Your task to perform on an android device: Clear the shopping cart on newegg.com. Add "razer thresher" to the cart on newegg.com, then select checkout. Image 0: 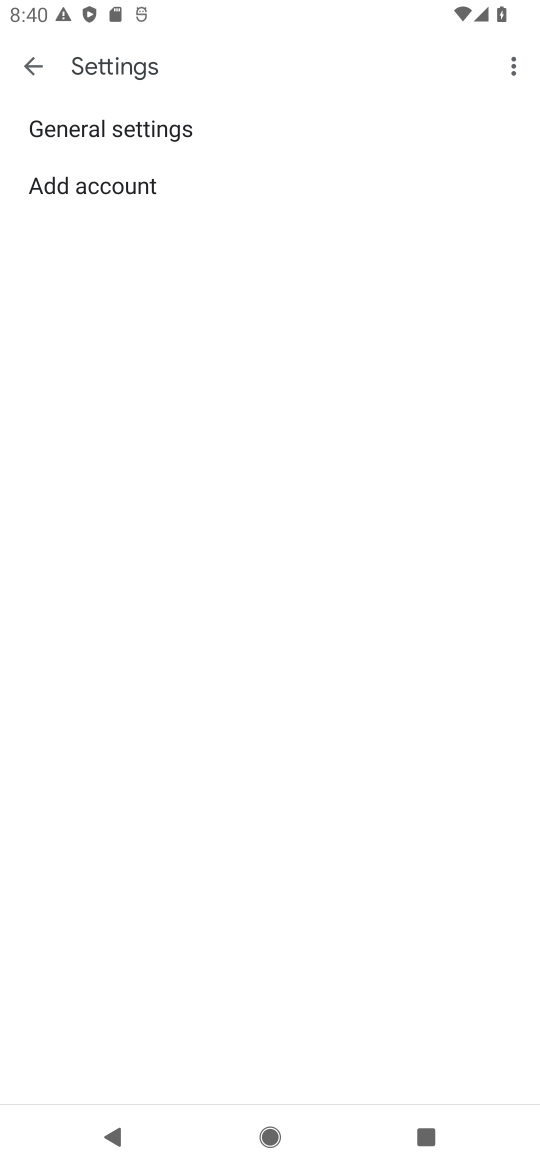
Step 0: press home button
Your task to perform on an android device: Clear the shopping cart on newegg.com. Add "razer thresher" to the cart on newegg.com, then select checkout. Image 1: 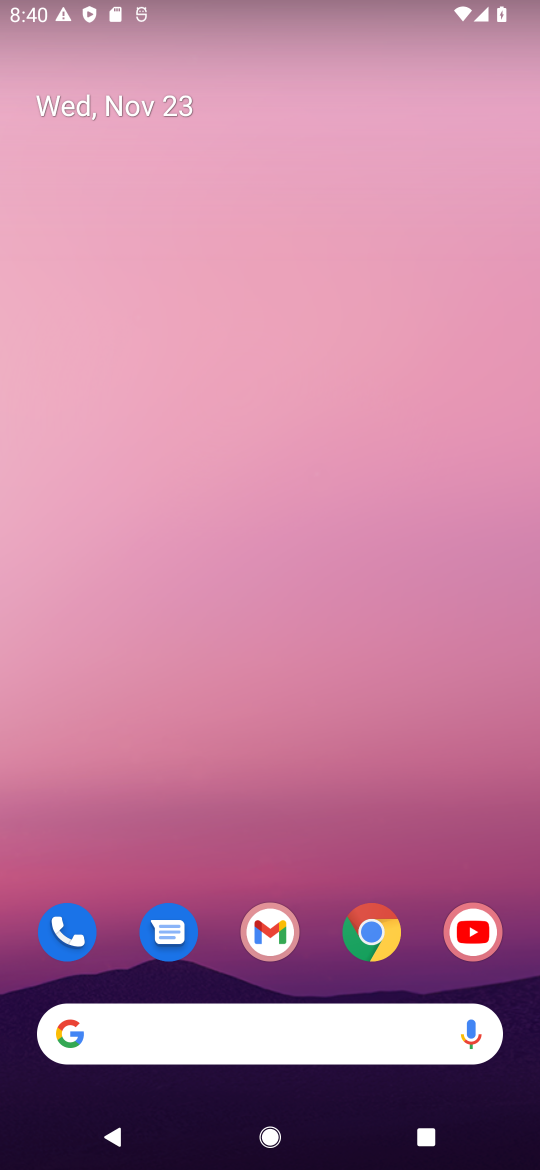
Step 1: click (366, 938)
Your task to perform on an android device: Clear the shopping cart on newegg.com. Add "razer thresher" to the cart on newegg.com, then select checkout. Image 2: 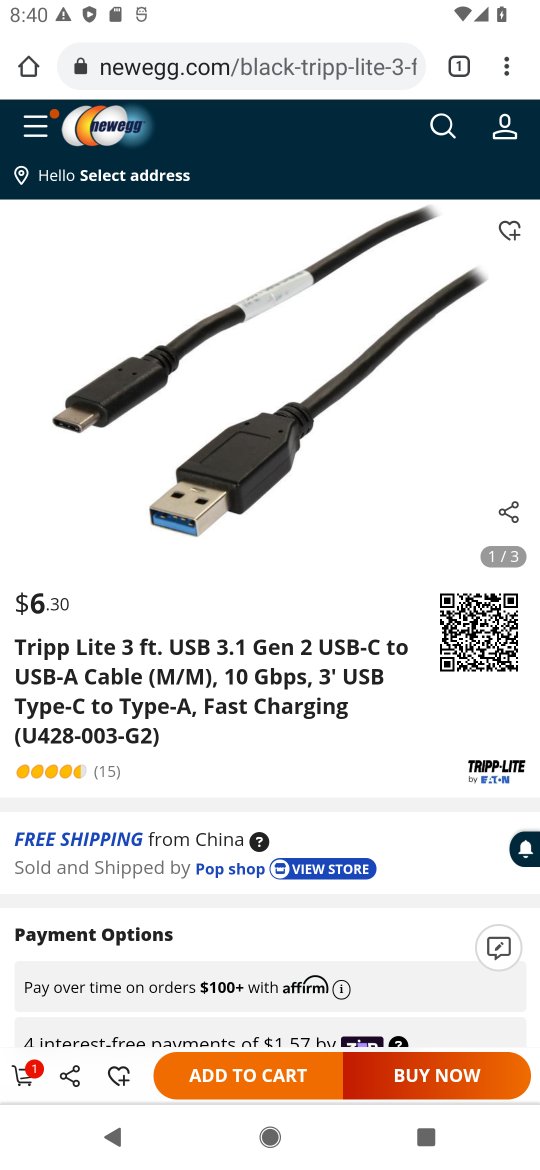
Step 2: click (241, 65)
Your task to perform on an android device: Clear the shopping cart on newegg.com. Add "razer thresher" to the cart on newegg.com, then select checkout. Image 3: 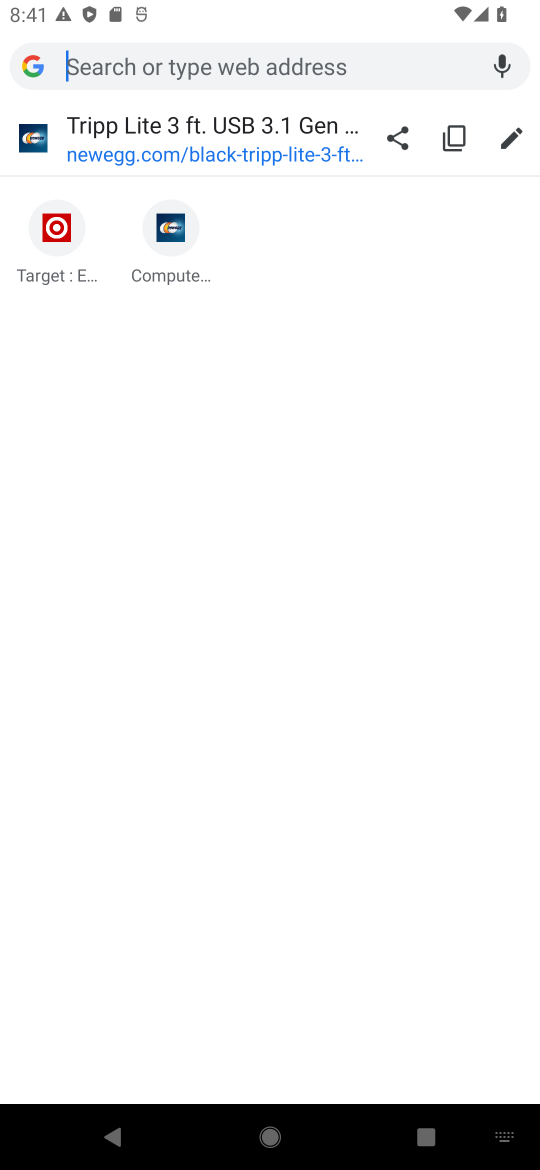
Step 3: type "newegg.com"
Your task to perform on an android device: Clear the shopping cart on newegg.com. Add "razer thresher" to the cart on newegg.com, then select checkout. Image 4: 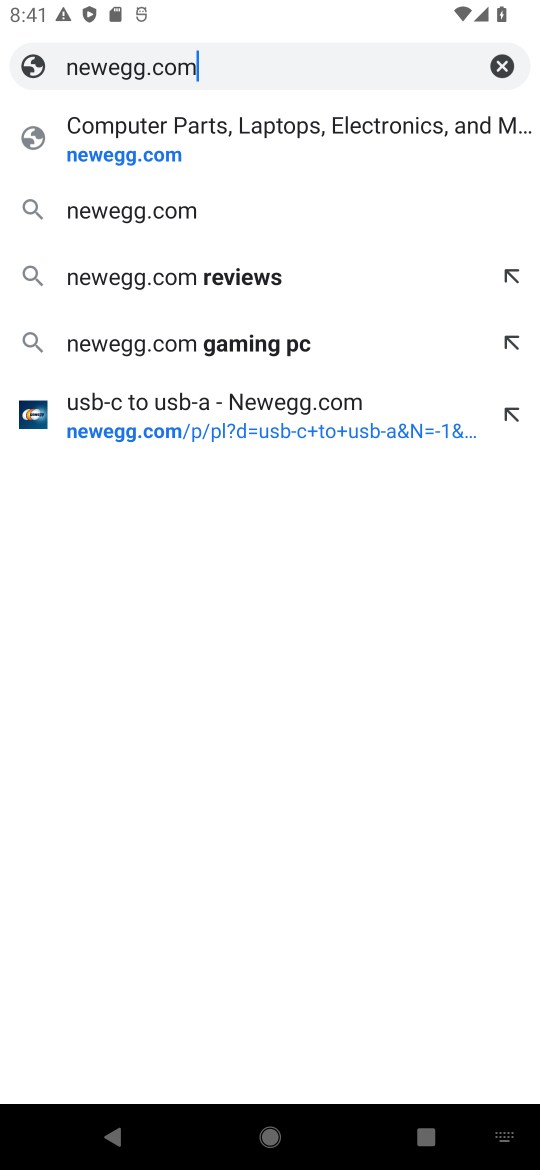
Step 4: click (293, 121)
Your task to perform on an android device: Clear the shopping cart on newegg.com. Add "razer thresher" to the cart on newegg.com, then select checkout. Image 5: 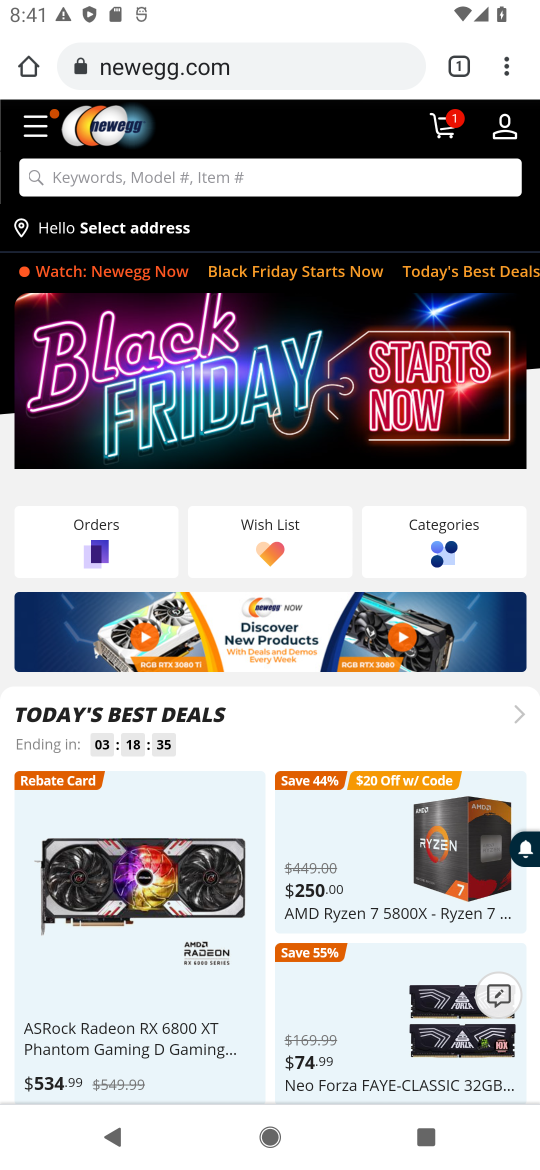
Step 5: click (50, 138)
Your task to perform on an android device: Clear the shopping cart on newegg.com. Add "razer thresher" to the cart on newegg.com, then select checkout. Image 6: 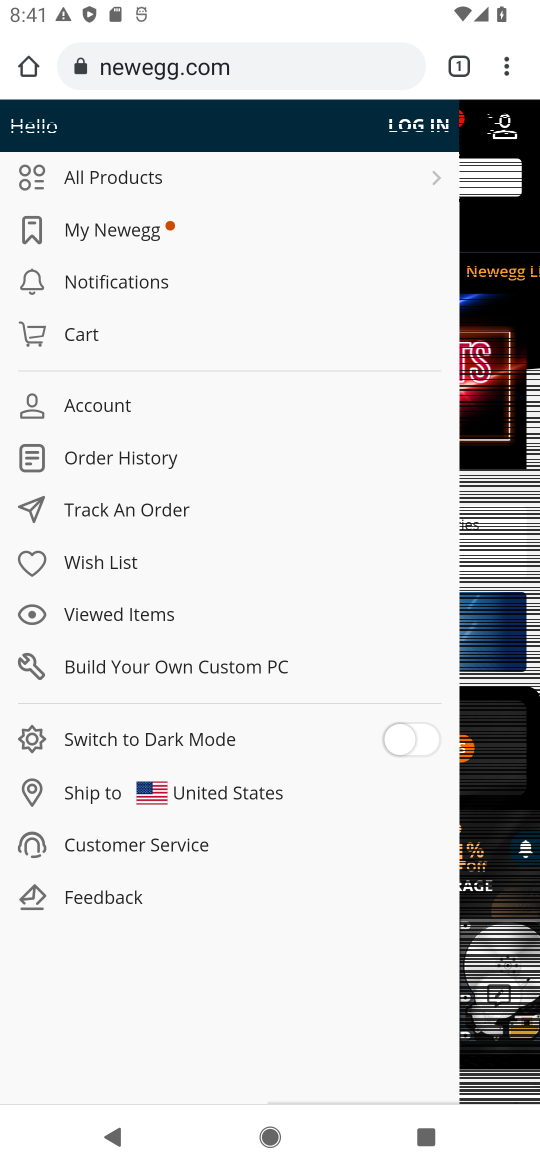
Step 6: click (89, 351)
Your task to perform on an android device: Clear the shopping cart on newegg.com. Add "razer thresher" to the cart on newegg.com, then select checkout. Image 7: 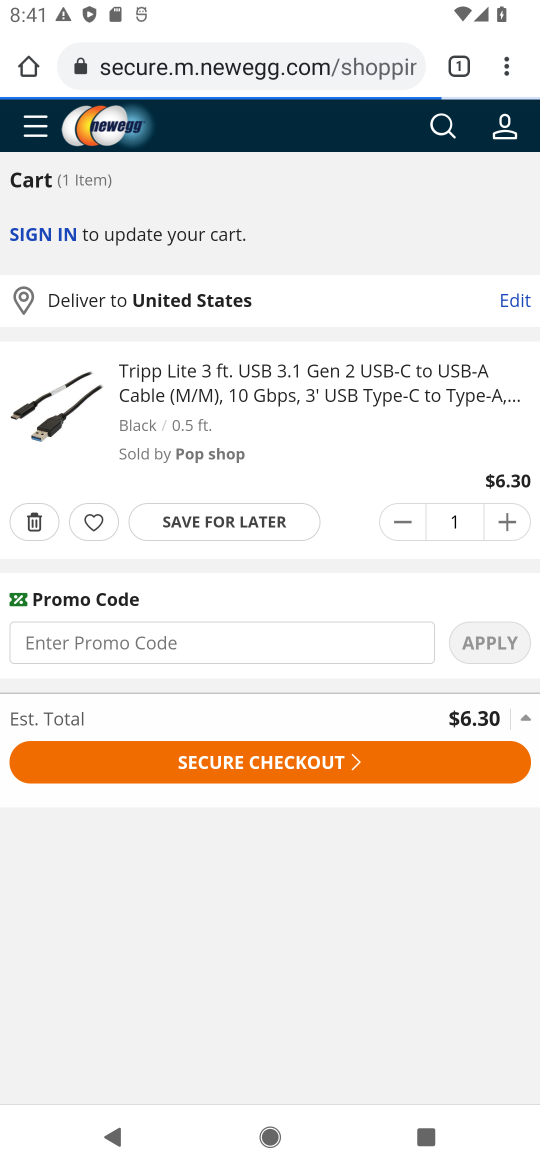
Step 7: click (31, 529)
Your task to perform on an android device: Clear the shopping cart on newegg.com. Add "razer thresher" to the cart on newegg.com, then select checkout. Image 8: 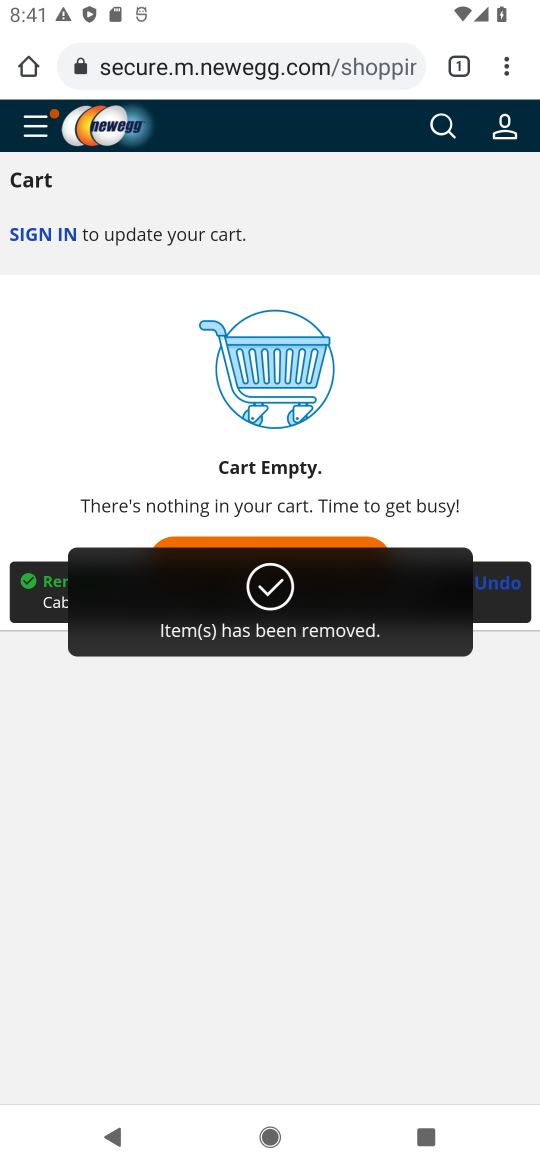
Step 8: click (443, 140)
Your task to perform on an android device: Clear the shopping cart on newegg.com. Add "razer thresher" to the cart on newegg.com, then select checkout. Image 9: 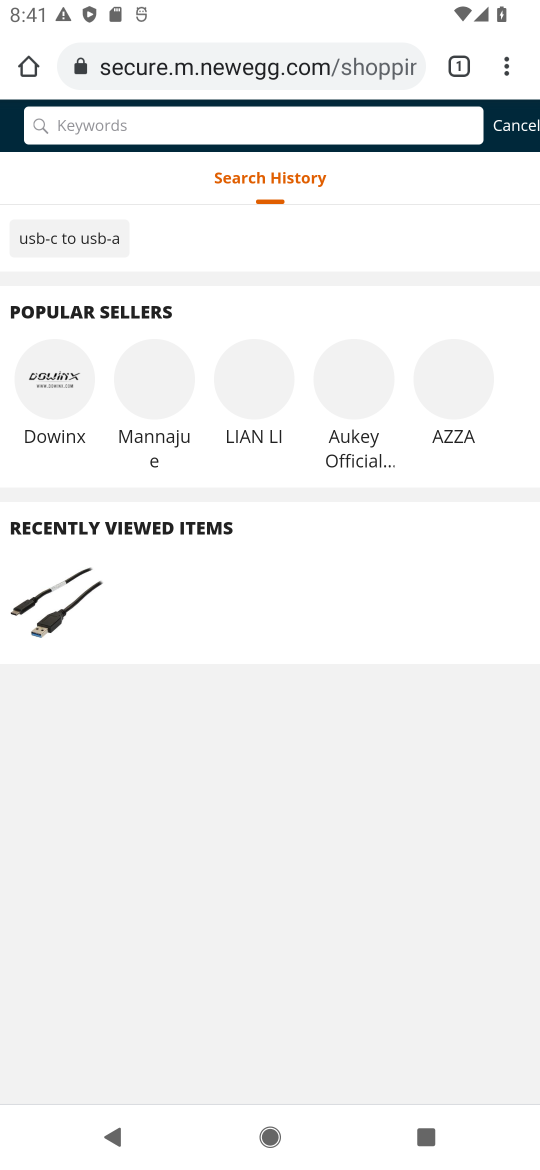
Step 9: click (445, 128)
Your task to perform on an android device: Clear the shopping cart on newegg.com. Add "razer thresher" to the cart on newegg.com, then select checkout. Image 10: 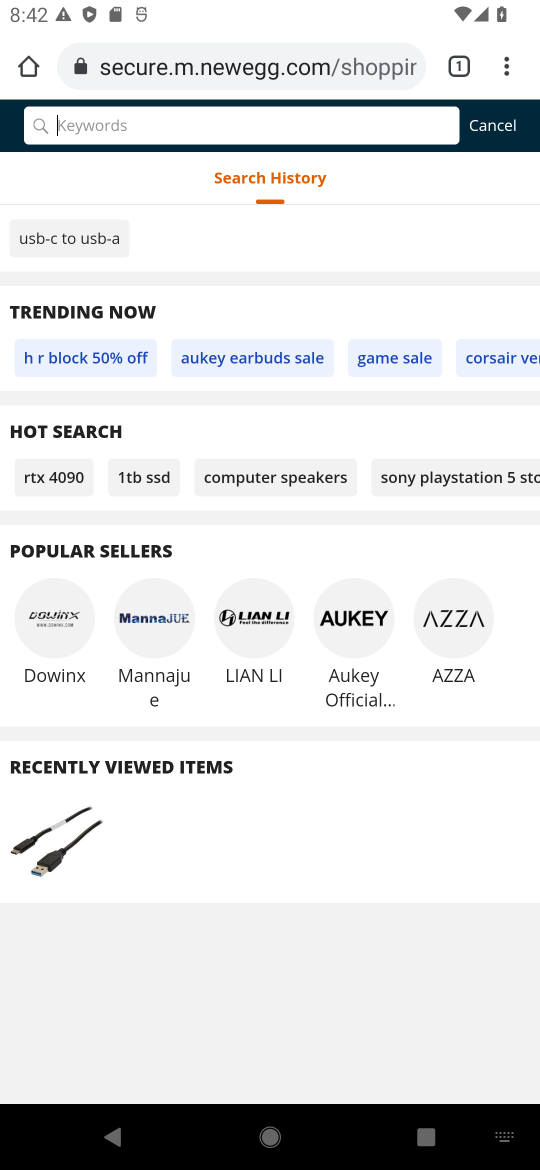
Step 10: type "razer thresher"
Your task to perform on an android device: Clear the shopping cart on newegg.com. Add "razer thresher" to the cart on newegg.com, then select checkout. Image 11: 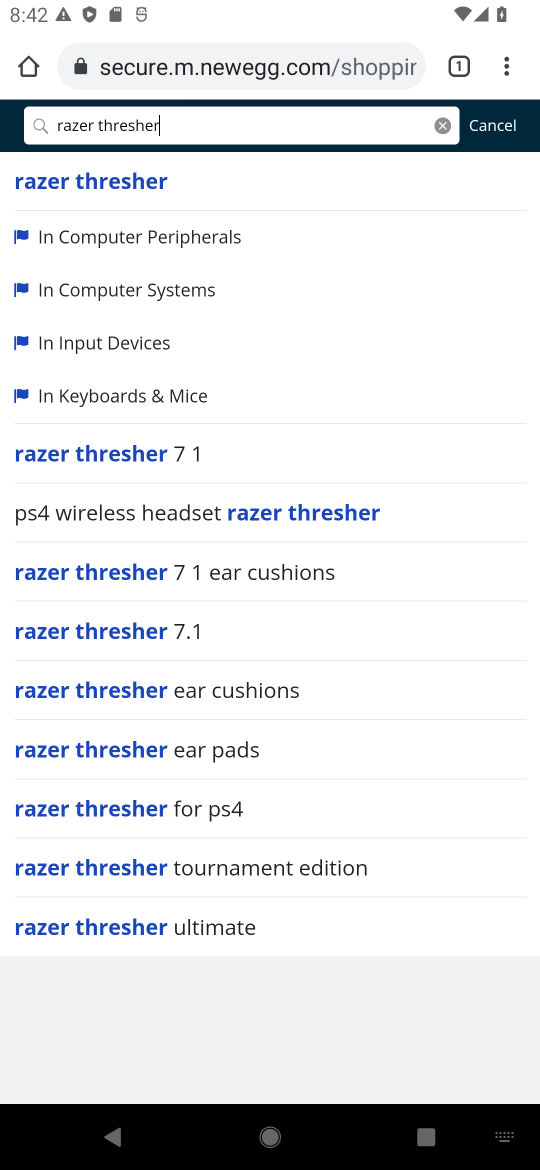
Step 11: press enter
Your task to perform on an android device: Clear the shopping cart on newegg.com. Add "razer thresher" to the cart on newegg.com, then select checkout. Image 12: 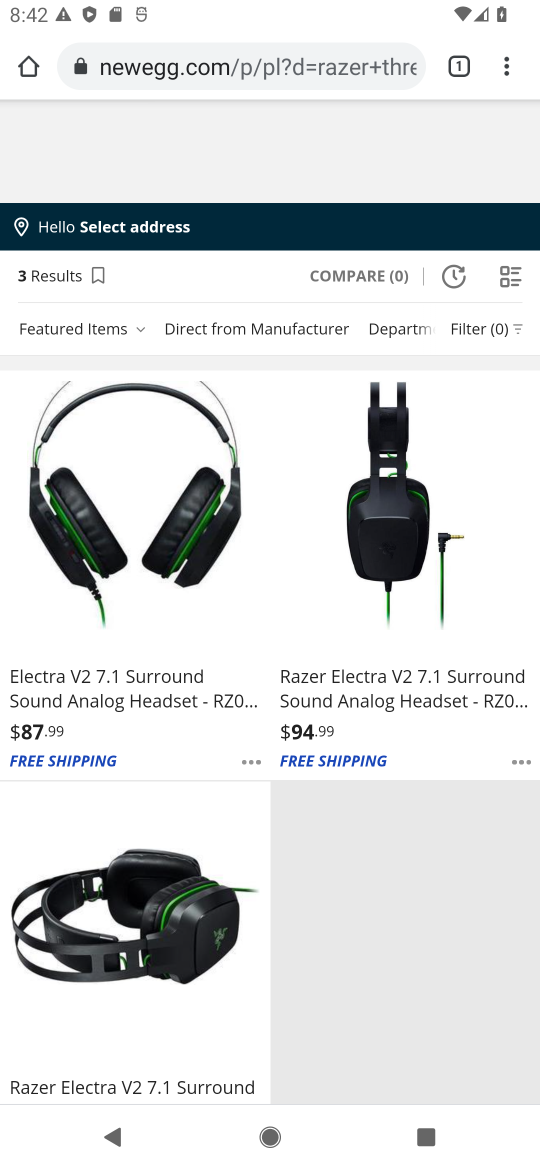
Step 12: task complete